Your task to perform on an android device: turn off sleep mode Image 0: 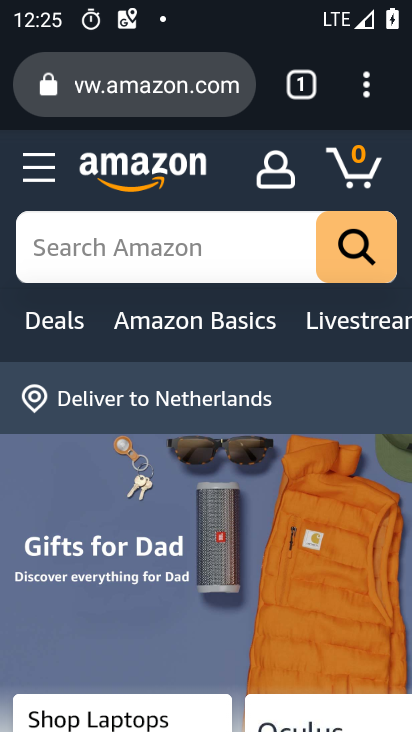
Step 0: press home button
Your task to perform on an android device: turn off sleep mode Image 1: 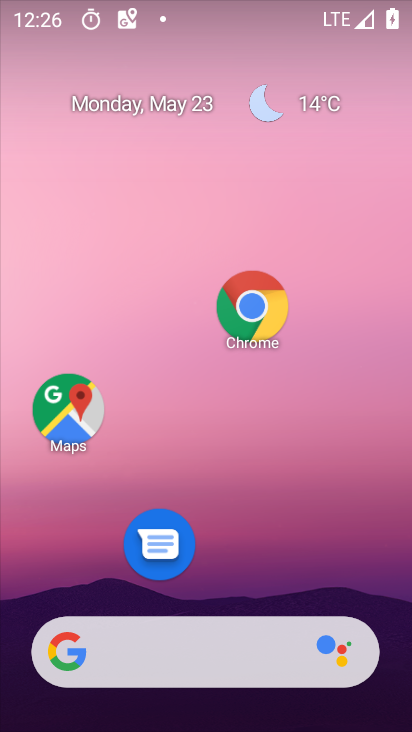
Step 1: drag from (276, 584) to (197, 99)
Your task to perform on an android device: turn off sleep mode Image 2: 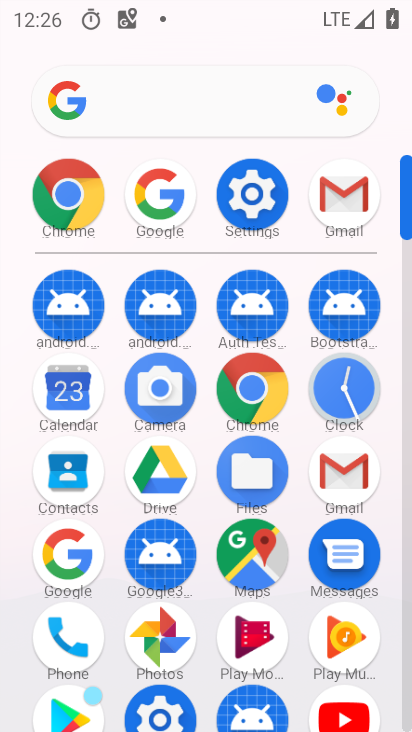
Step 2: click (257, 189)
Your task to perform on an android device: turn off sleep mode Image 3: 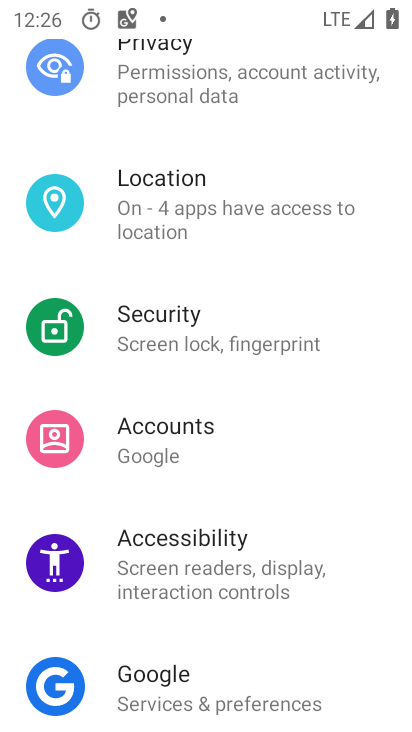
Step 3: task complete